Your task to perform on an android device: toggle priority inbox in the gmail app Image 0: 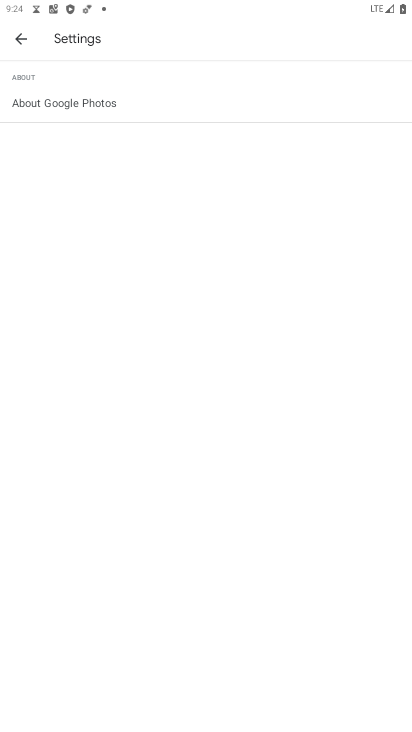
Step 0: press home button
Your task to perform on an android device: toggle priority inbox in the gmail app Image 1: 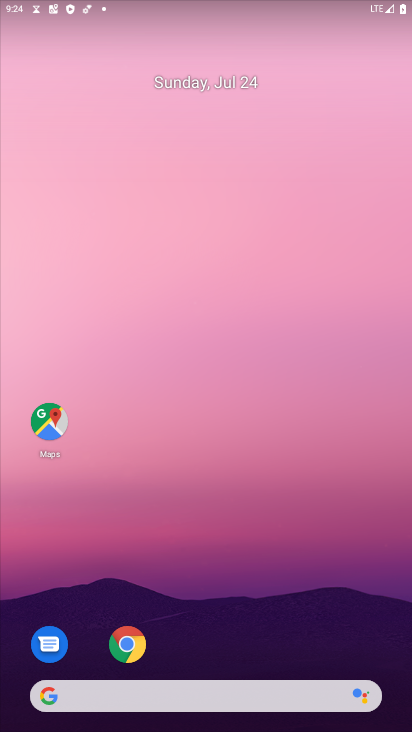
Step 1: drag from (341, 628) to (329, 90)
Your task to perform on an android device: toggle priority inbox in the gmail app Image 2: 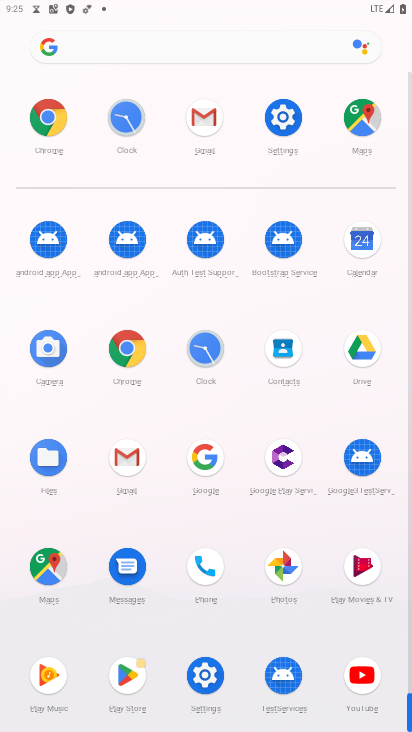
Step 2: click (123, 449)
Your task to perform on an android device: toggle priority inbox in the gmail app Image 3: 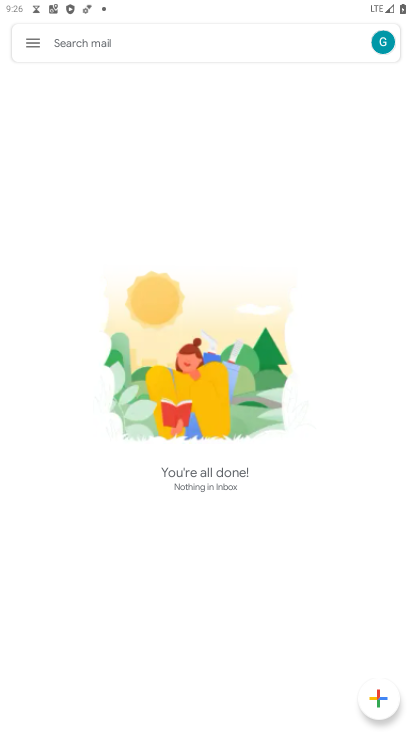
Step 3: click (30, 49)
Your task to perform on an android device: toggle priority inbox in the gmail app Image 4: 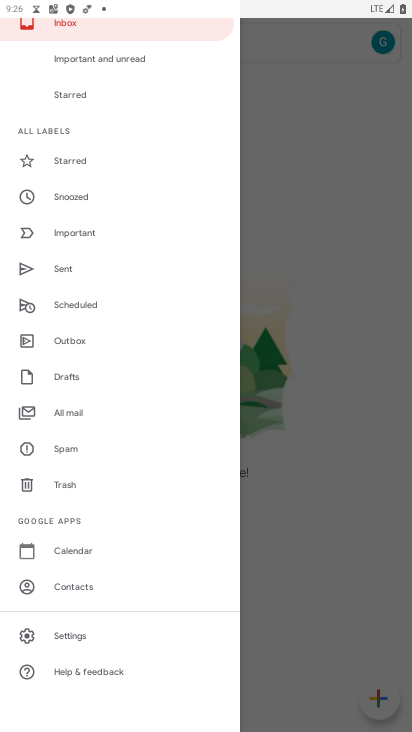
Step 4: click (66, 631)
Your task to perform on an android device: toggle priority inbox in the gmail app Image 5: 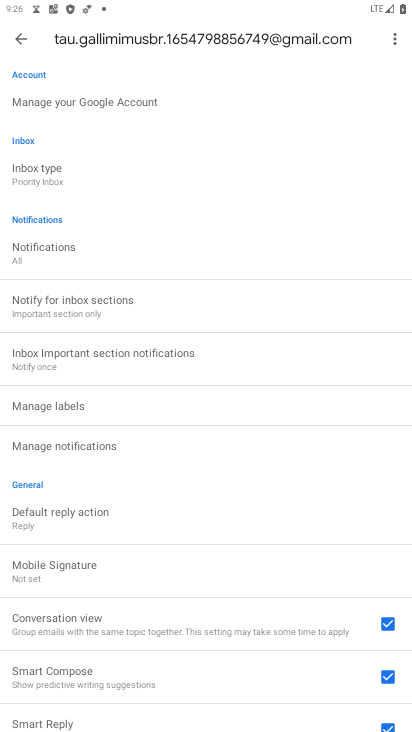
Step 5: drag from (159, 602) to (184, 375)
Your task to perform on an android device: toggle priority inbox in the gmail app Image 6: 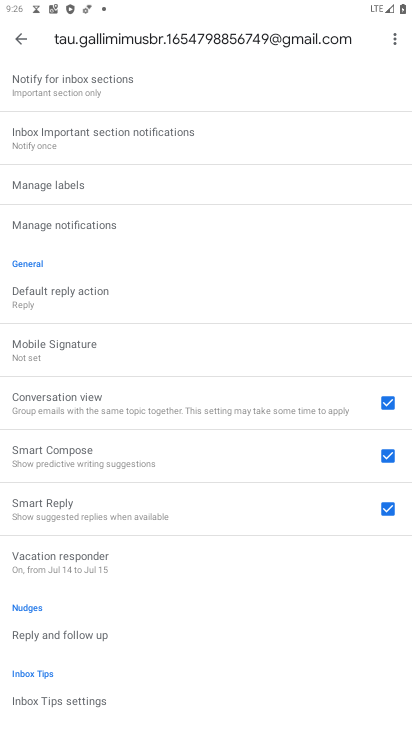
Step 6: drag from (133, 137) to (86, 672)
Your task to perform on an android device: toggle priority inbox in the gmail app Image 7: 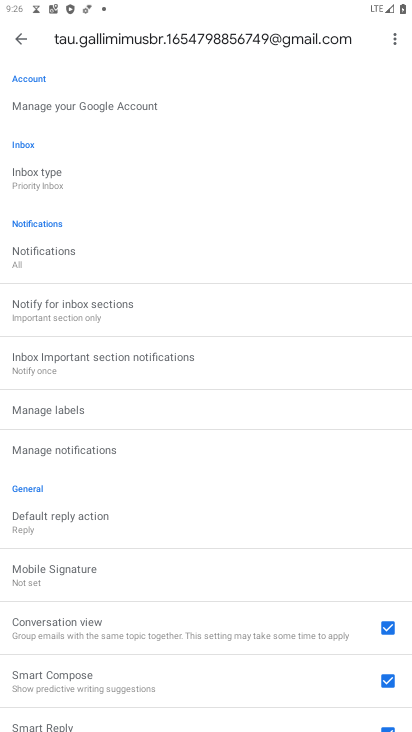
Step 7: click (65, 179)
Your task to perform on an android device: toggle priority inbox in the gmail app Image 8: 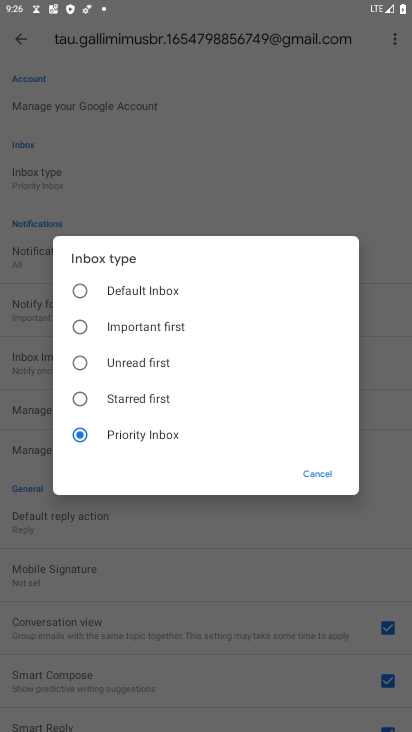
Step 8: click (139, 283)
Your task to perform on an android device: toggle priority inbox in the gmail app Image 9: 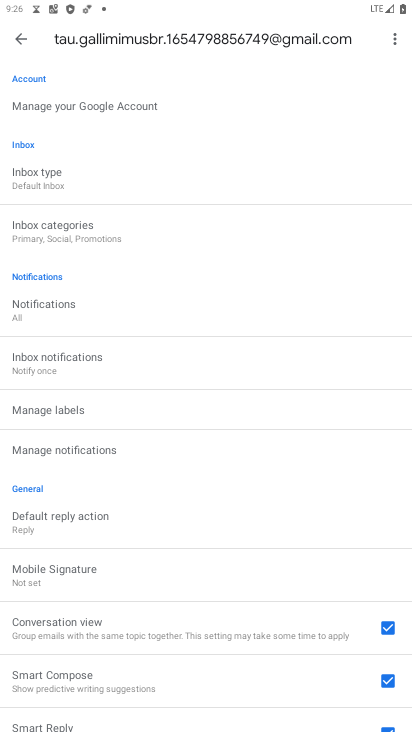
Step 9: task complete